Your task to perform on an android device: toggle pop-ups in chrome Image 0: 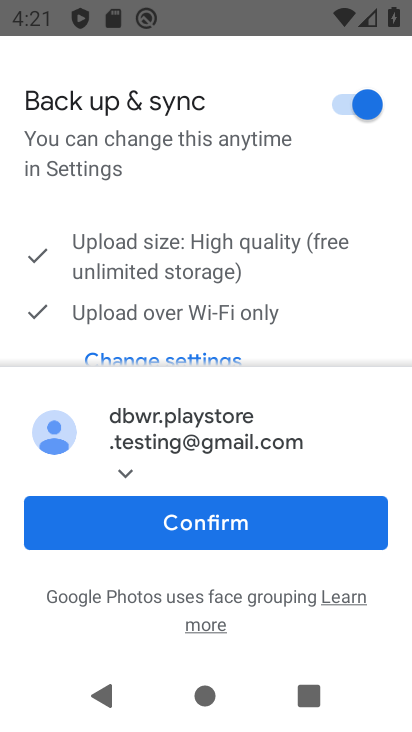
Step 0: press home button
Your task to perform on an android device: toggle pop-ups in chrome Image 1: 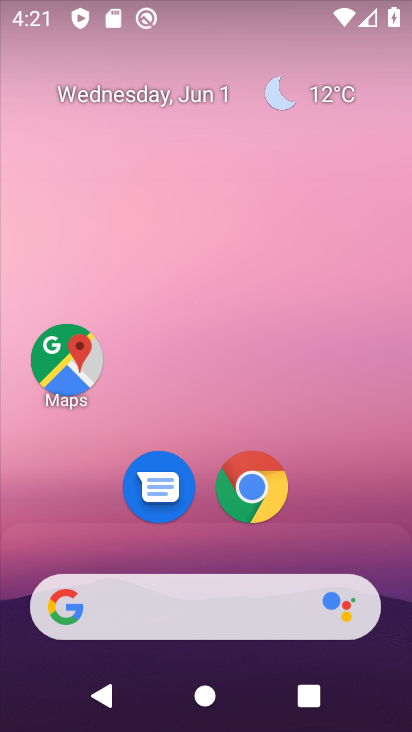
Step 1: click (241, 501)
Your task to perform on an android device: toggle pop-ups in chrome Image 2: 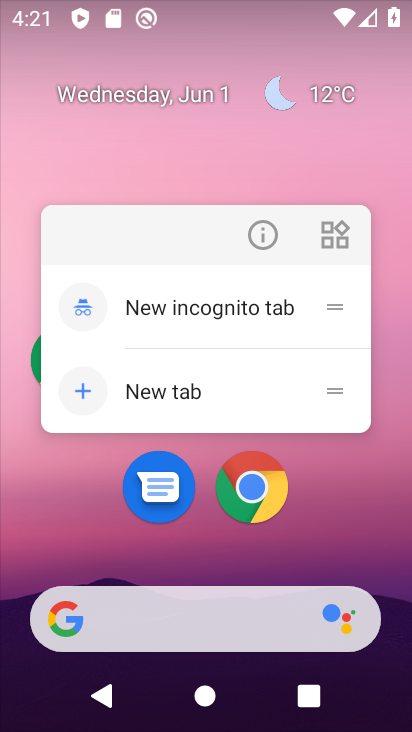
Step 2: click (246, 496)
Your task to perform on an android device: toggle pop-ups in chrome Image 3: 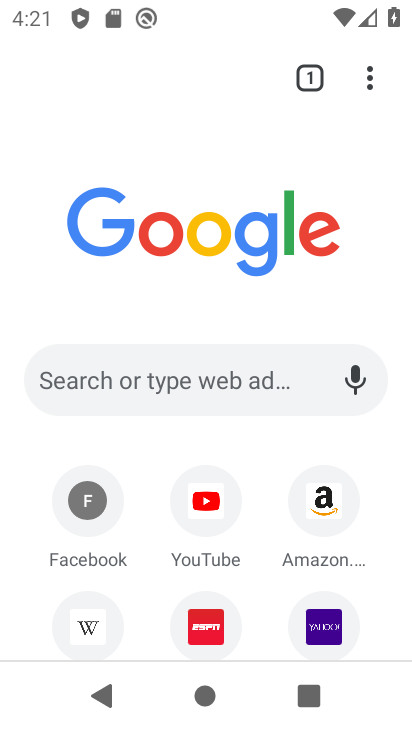
Step 3: drag from (370, 77) to (225, 553)
Your task to perform on an android device: toggle pop-ups in chrome Image 4: 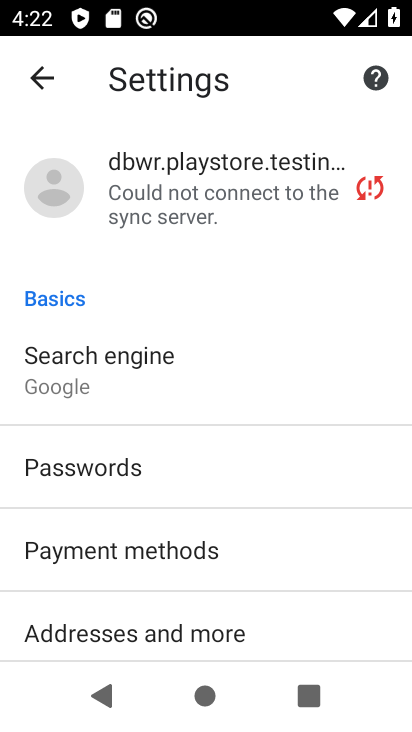
Step 4: drag from (211, 618) to (317, 243)
Your task to perform on an android device: toggle pop-ups in chrome Image 5: 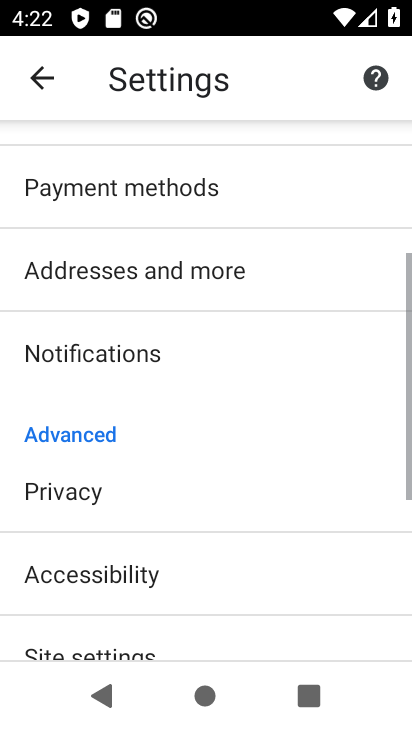
Step 5: drag from (228, 514) to (284, 328)
Your task to perform on an android device: toggle pop-ups in chrome Image 6: 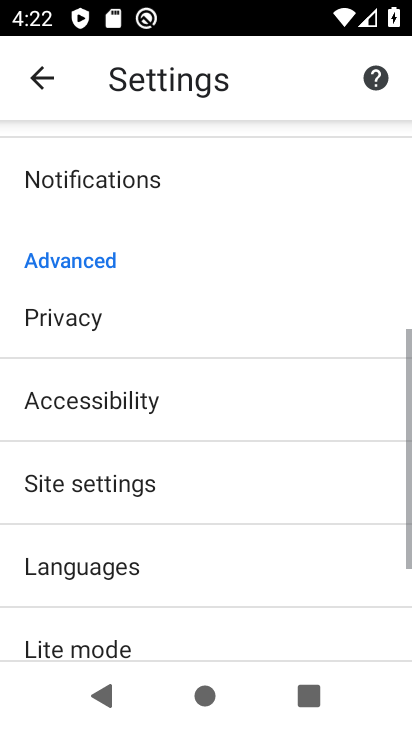
Step 6: click (224, 479)
Your task to perform on an android device: toggle pop-ups in chrome Image 7: 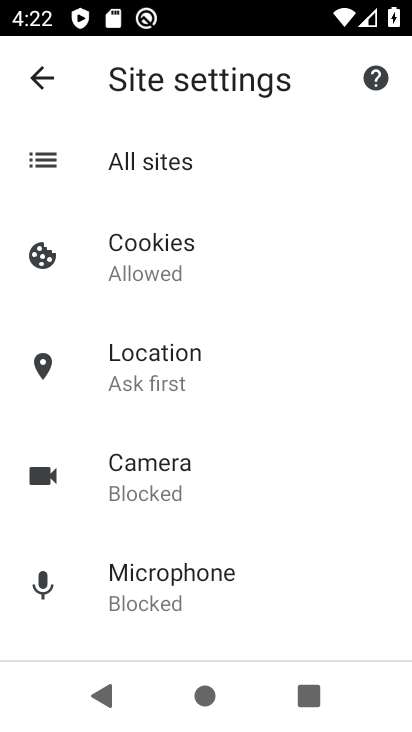
Step 7: drag from (216, 580) to (293, 214)
Your task to perform on an android device: toggle pop-ups in chrome Image 8: 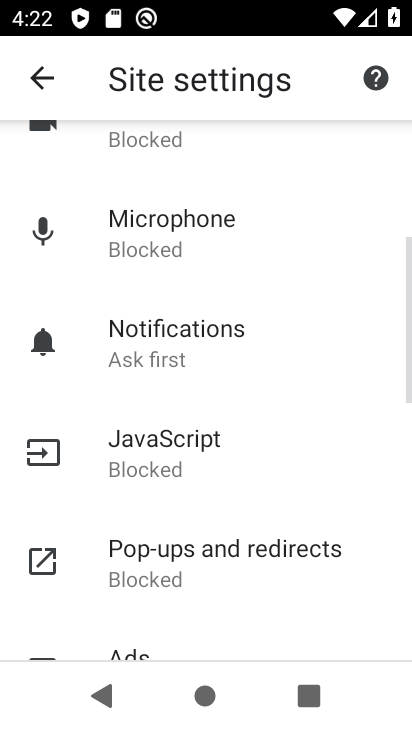
Step 8: click (196, 569)
Your task to perform on an android device: toggle pop-ups in chrome Image 9: 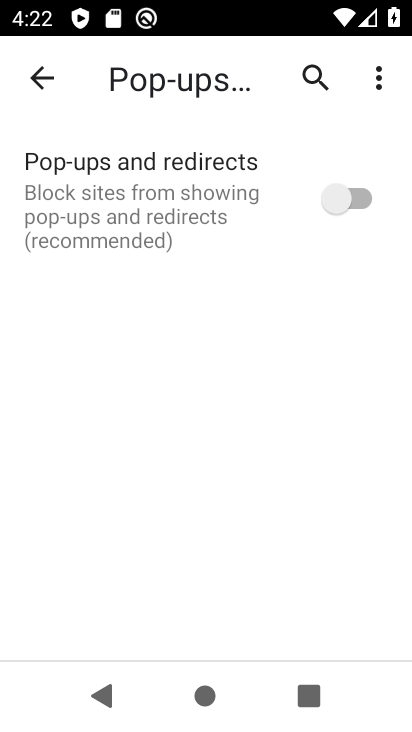
Step 9: click (388, 197)
Your task to perform on an android device: toggle pop-ups in chrome Image 10: 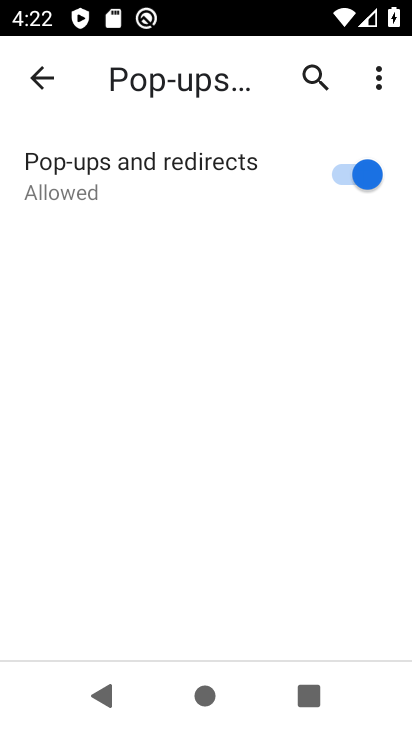
Step 10: task complete